Your task to perform on an android device: install app "Adobe Acrobat Reader: Edit PDF" Image 0: 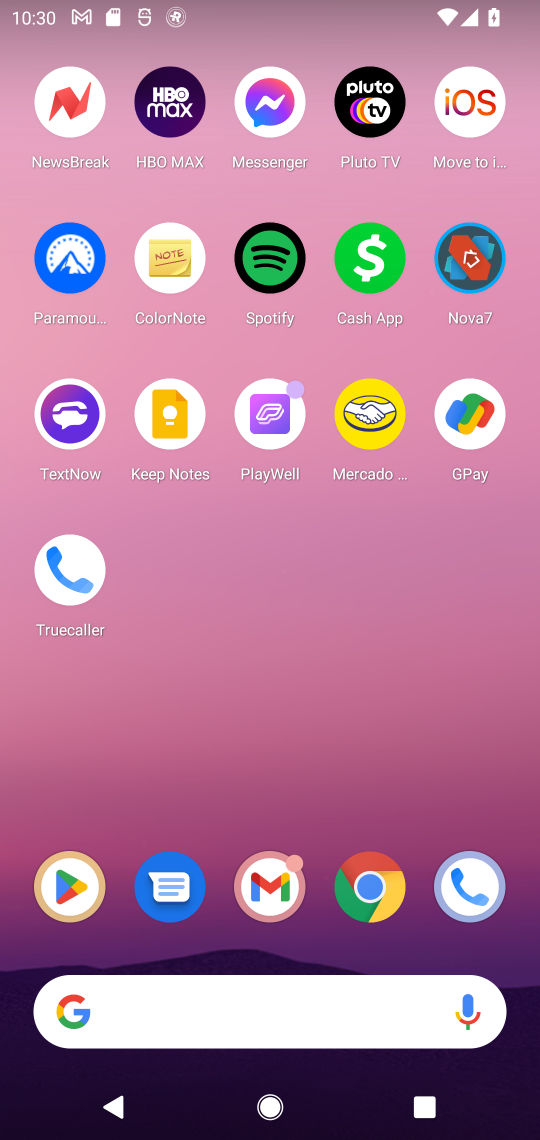
Step 0: click (70, 884)
Your task to perform on an android device: install app "Adobe Acrobat Reader: Edit PDF" Image 1: 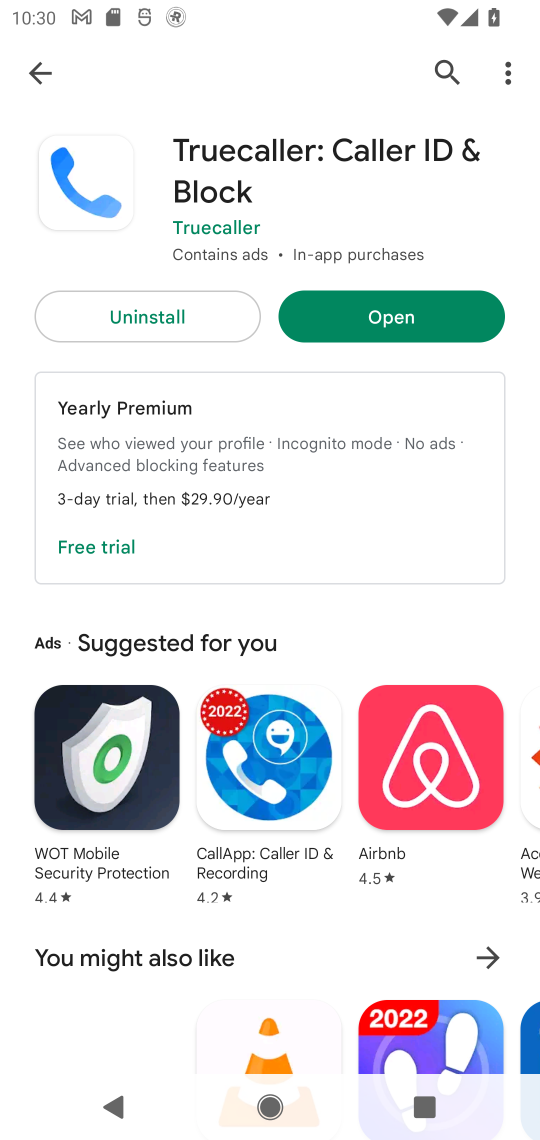
Step 1: click (438, 76)
Your task to perform on an android device: install app "Adobe Acrobat Reader: Edit PDF" Image 2: 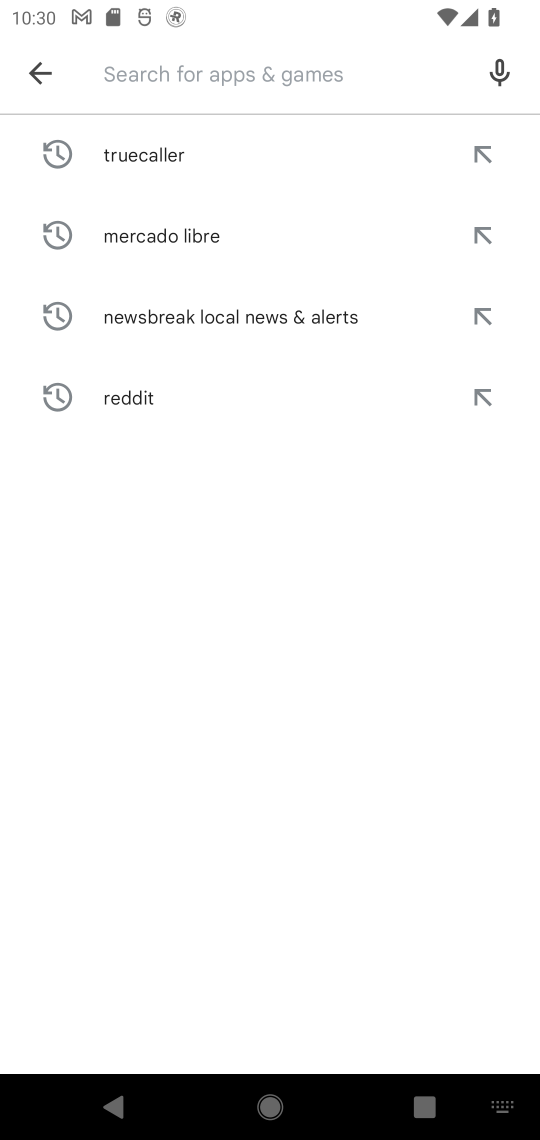
Step 2: type "adobe acrobat reader: edit PDF"
Your task to perform on an android device: install app "Adobe Acrobat Reader: Edit PDF" Image 3: 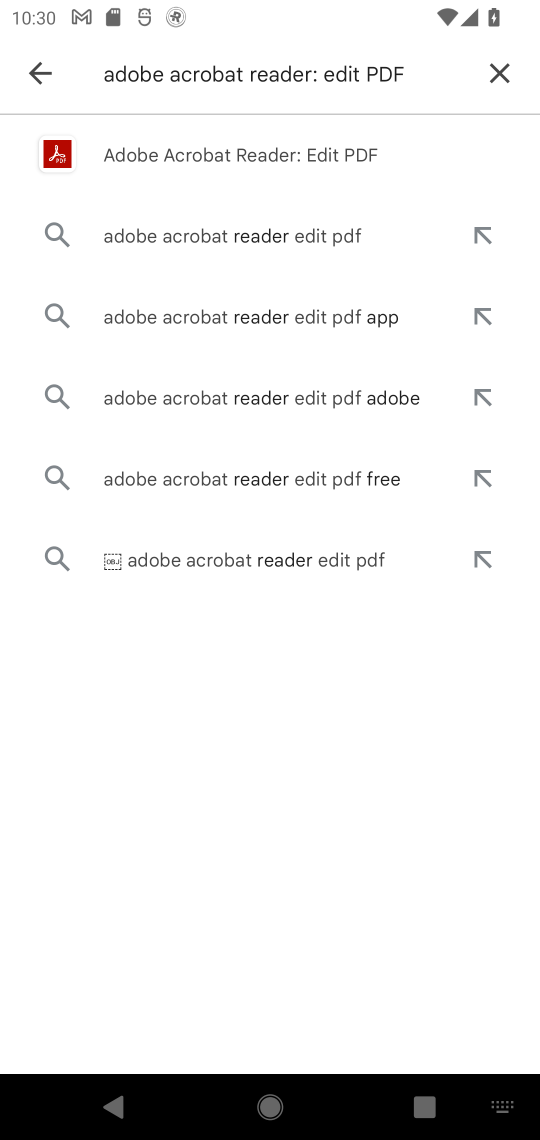
Step 3: click (171, 161)
Your task to perform on an android device: install app "Adobe Acrobat Reader: Edit PDF" Image 4: 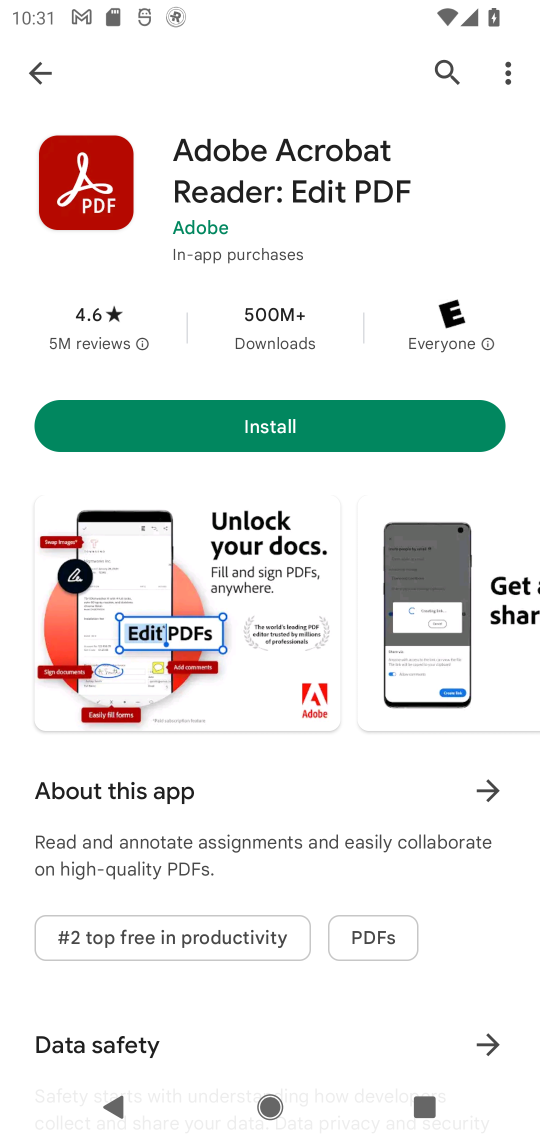
Step 4: click (205, 431)
Your task to perform on an android device: install app "Adobe Acrobat Reader: Edit PDF" Image 5: 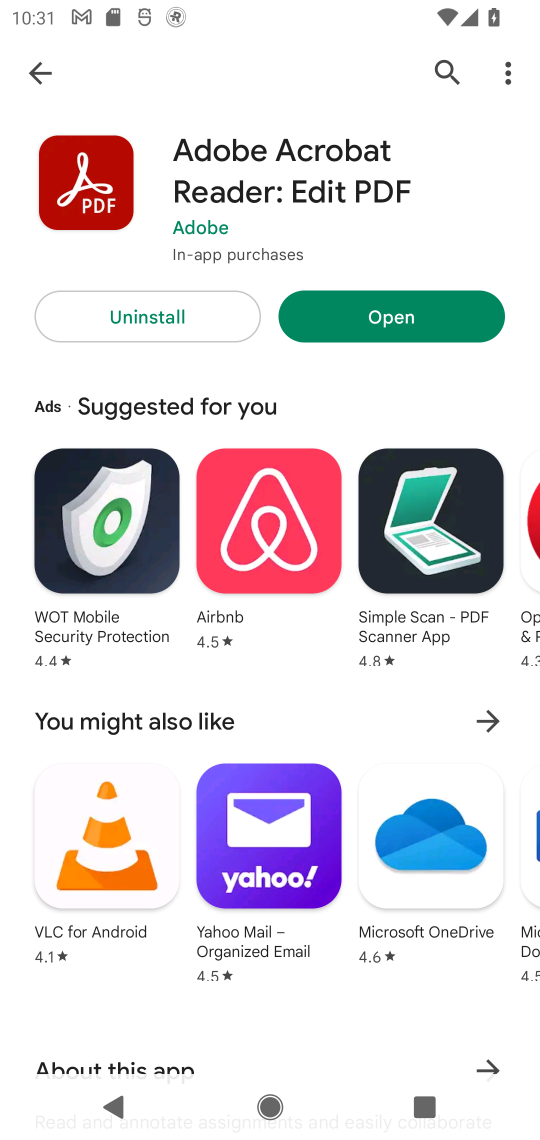
Step 5: task complete